Your task to perform on an android device: set default search engine in the chrome app Image 0: 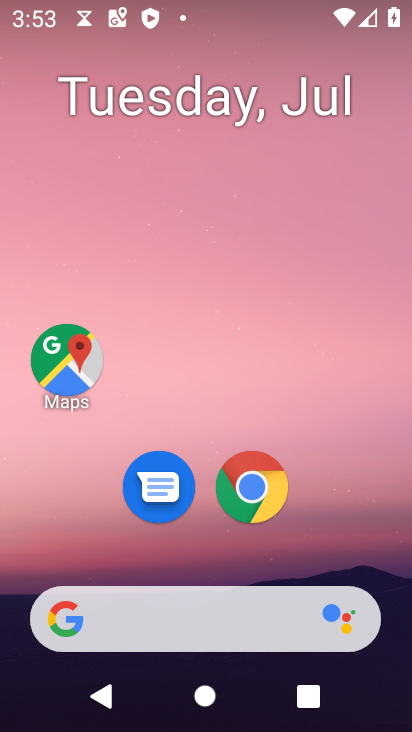
Step 0: click (264, 487)
Your task to perform on an android device: set default search engine in the chrome app Image 1: 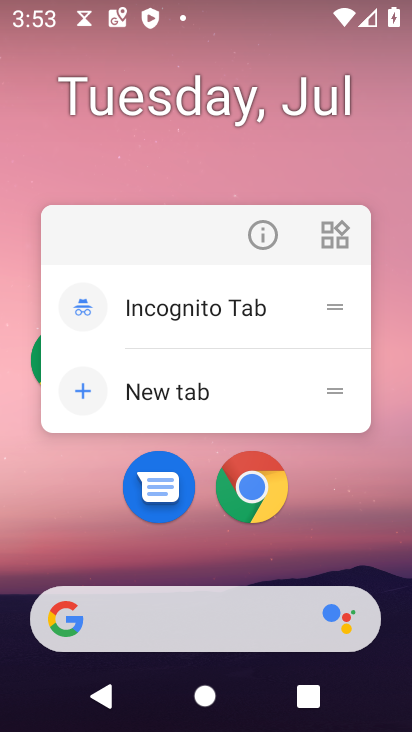
Step 1: click (250, 472)
Your task to perform on an android device: set default search engine in the chrome app Image 2: 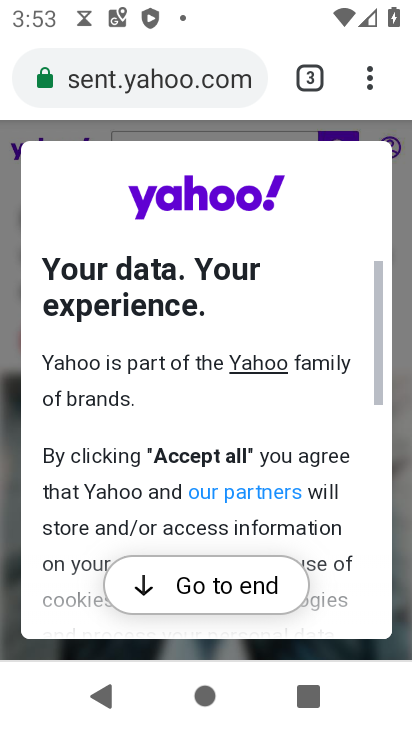
Step 2: drag from (361, 75) to (97, 552)
Your task to perform on an android device: set default search engine in the chrome app Image 3: 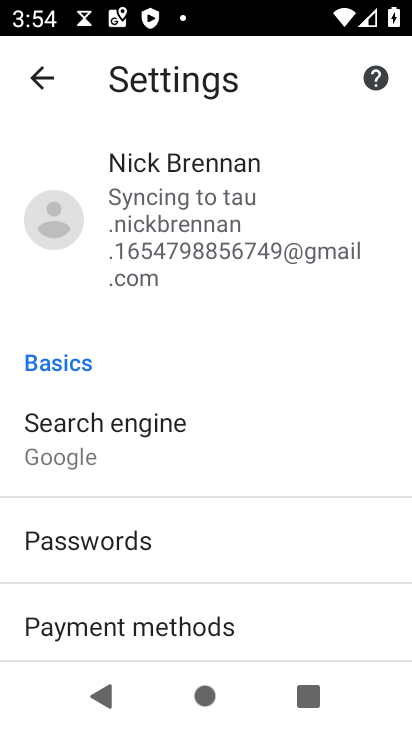
Step 3: click (111, 435)
Your task to perform on an android device: set default search engine in the chrome app Image 4: 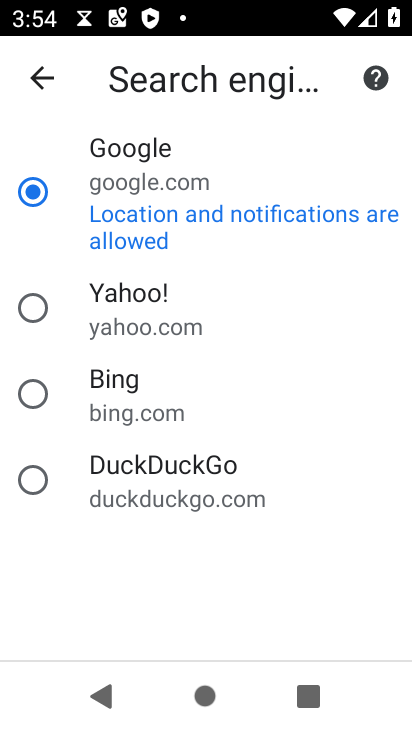
Step 4: click (139, 322)
Your task to perform on an android device: set default search engine in the chrome app Image 5: 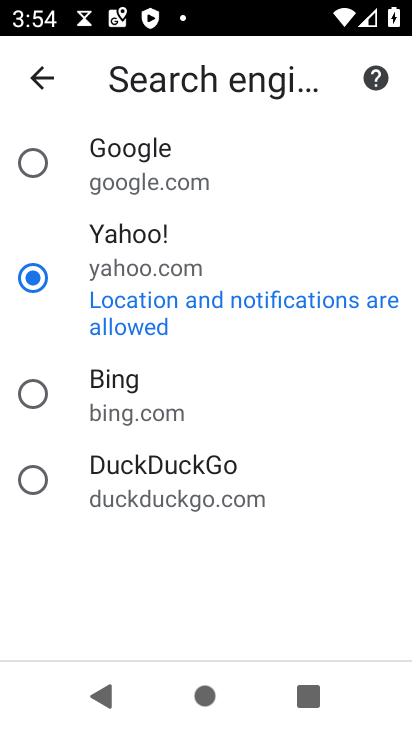
Step 5: task complete